Your task to perform on an android device: Open Android settings Image 0: 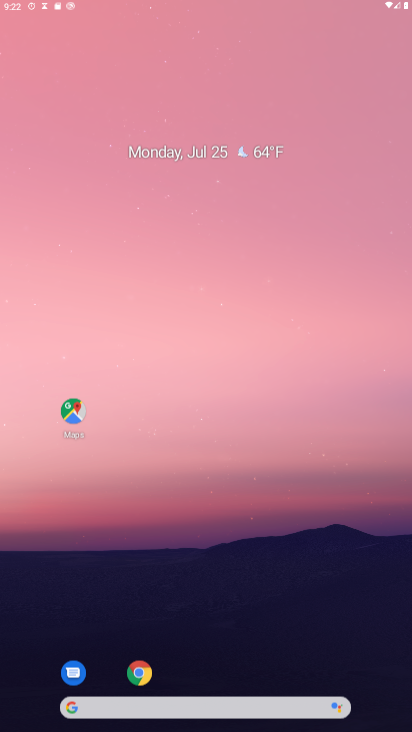
Step 0: press home button
Your task to perform on an android device: Open Android settings Image 1: 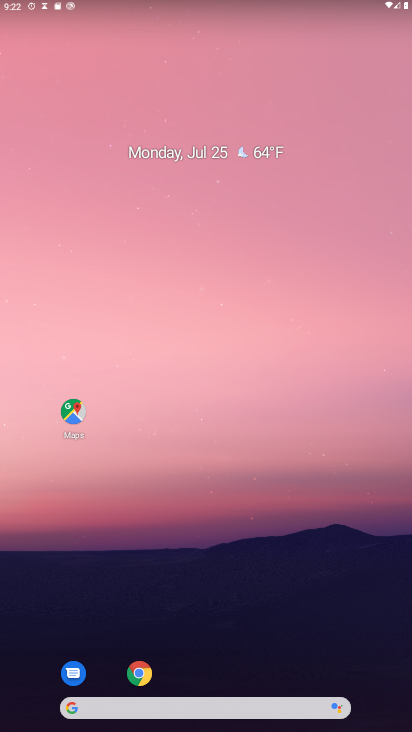
Step 1: drag from (211, 678) to (264, 29)
Your task to perform on an android device: Open Android settings Image 2: 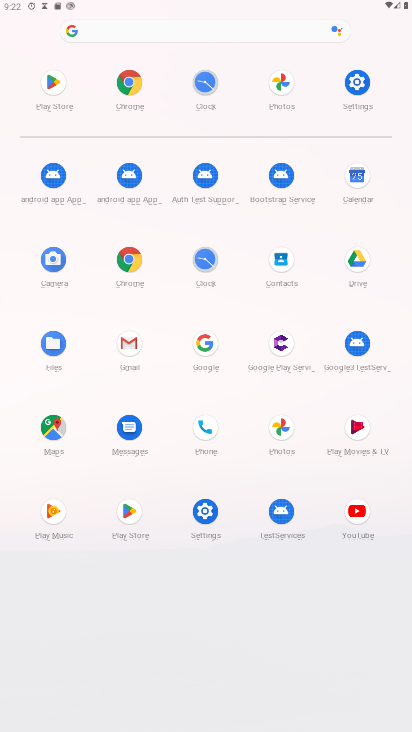
Step 2: click (355, 76)
Your task to perform on an android device: Open Android settings Image 3: 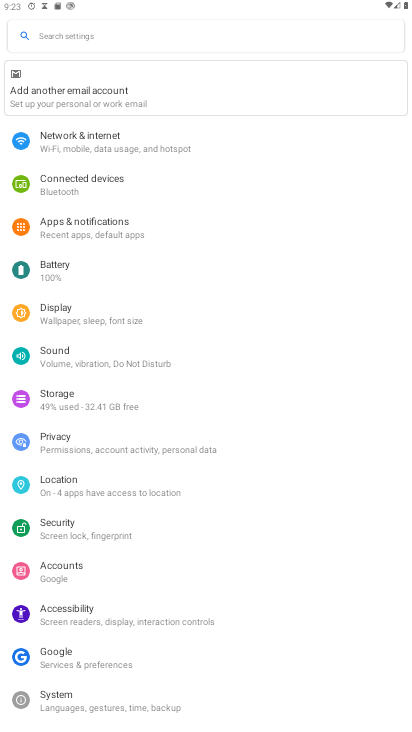
Step 3: drag from (149, 674) to (195, 151)
Your task to perform on an android device: Open Android settings Image 4: 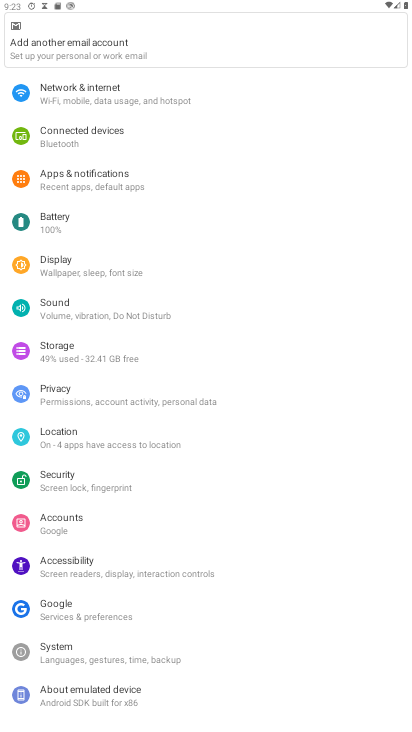
Step 4: click (153, 693)
Your task to perform on an android device: Open Android settings Image 5: 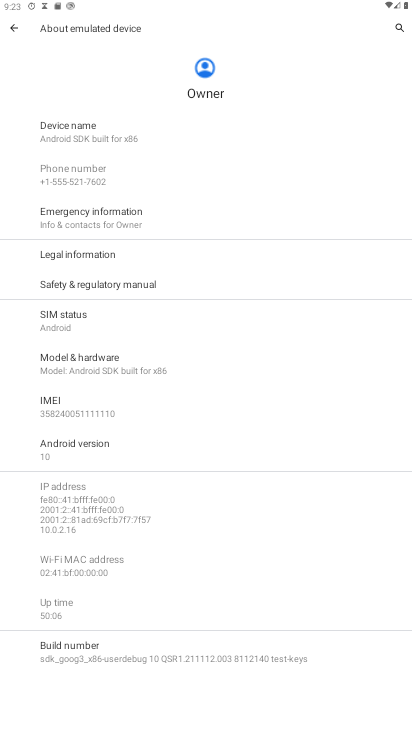
Step 5: click (107, 455)
Your task to perform on an android device: Open Android settings Image 6: 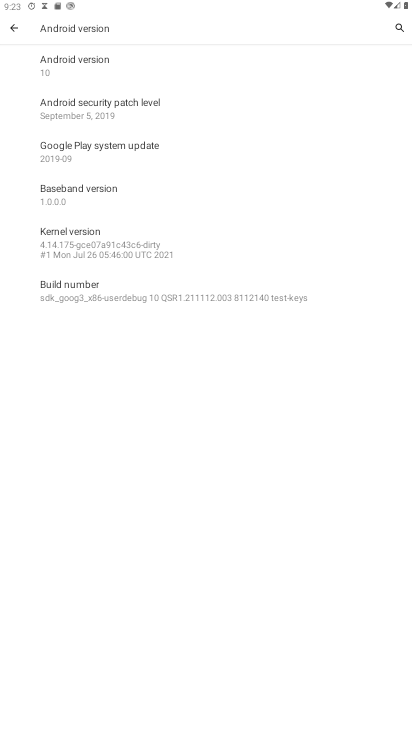
Step 6: task complete